Your task to perform on an android device: install app "Microsoft Authenticator" Image 0: 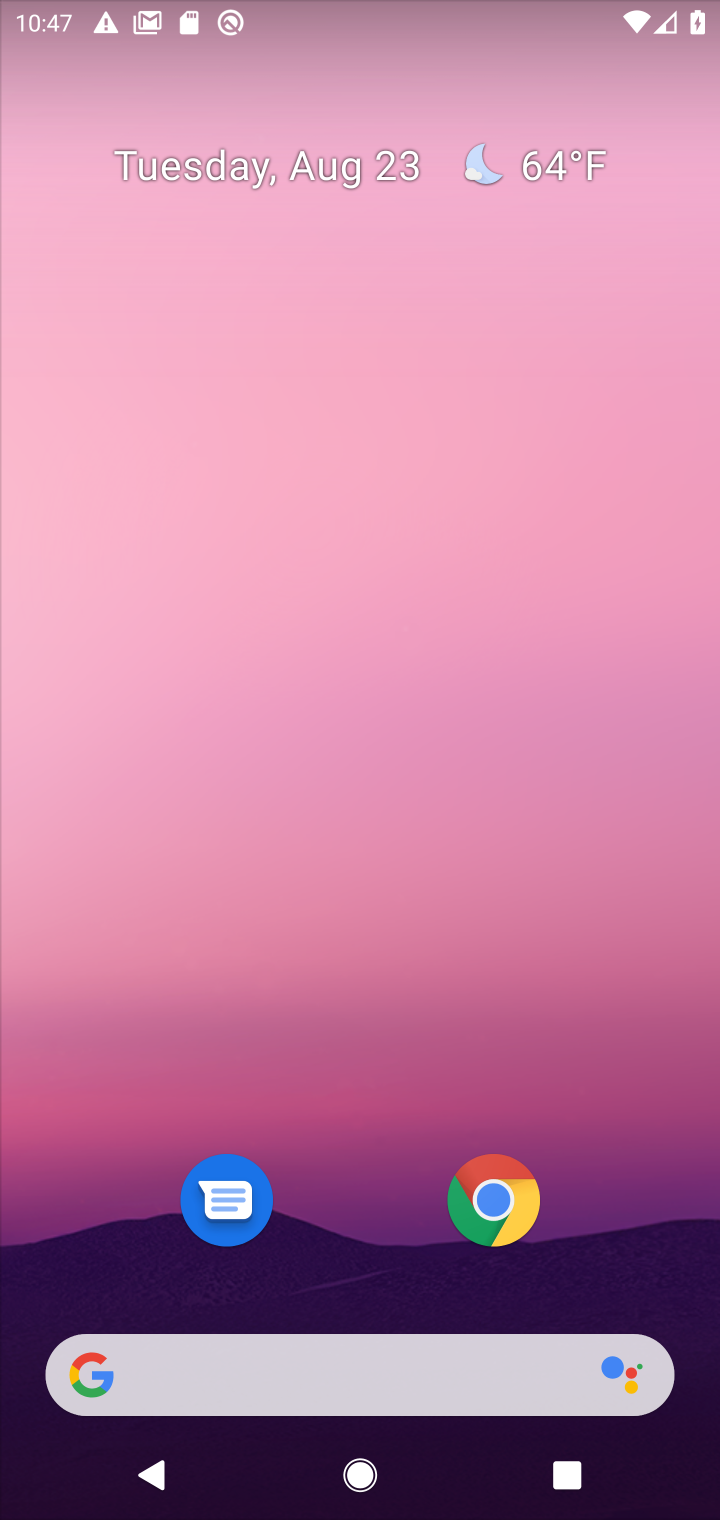
Step 0: drag from (305, 1327) to (225, 46)
Your task to perform on an android device: install app "Microsoft Authenticator" Image 1: 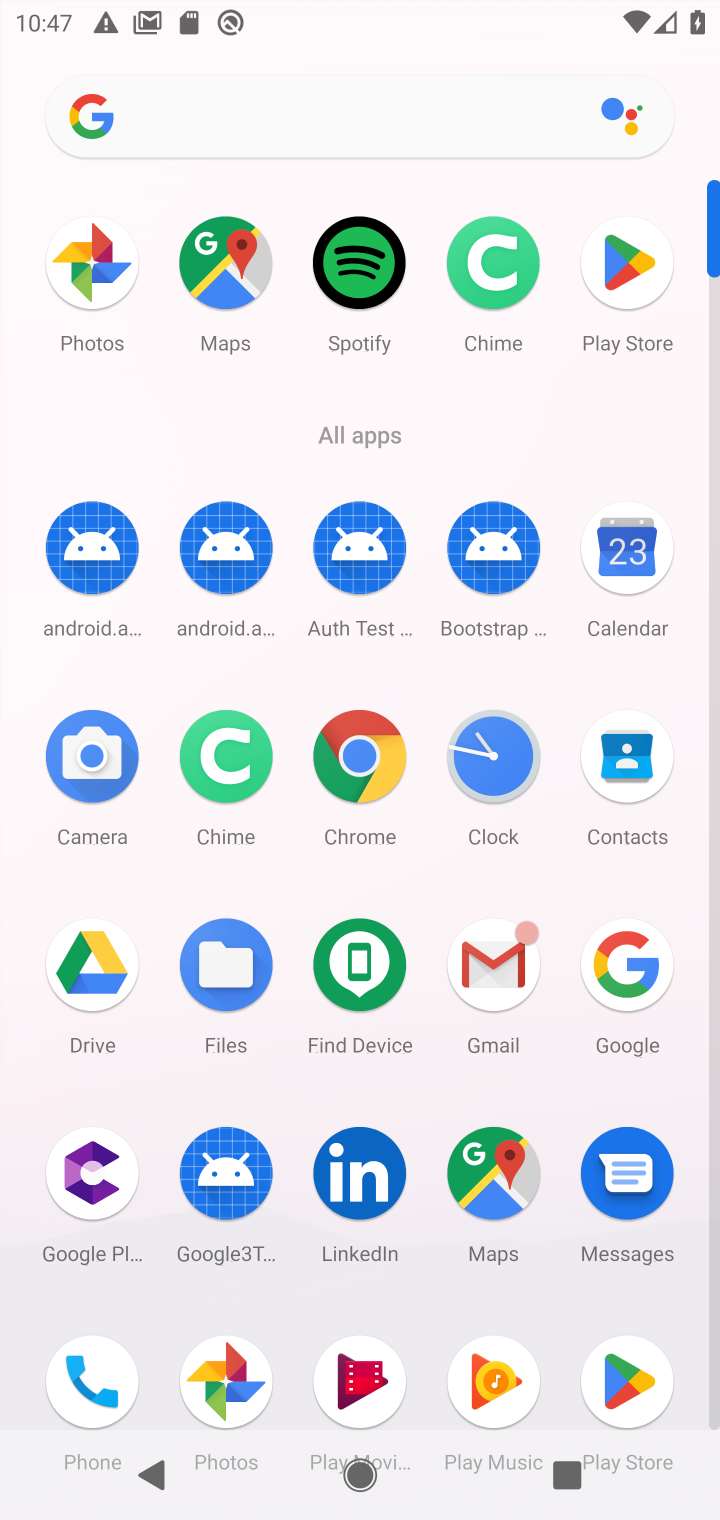
Step 1: click (613, 1345)
Your task to perform on an android device: install app "Microsoft Authenticator" Image 2: 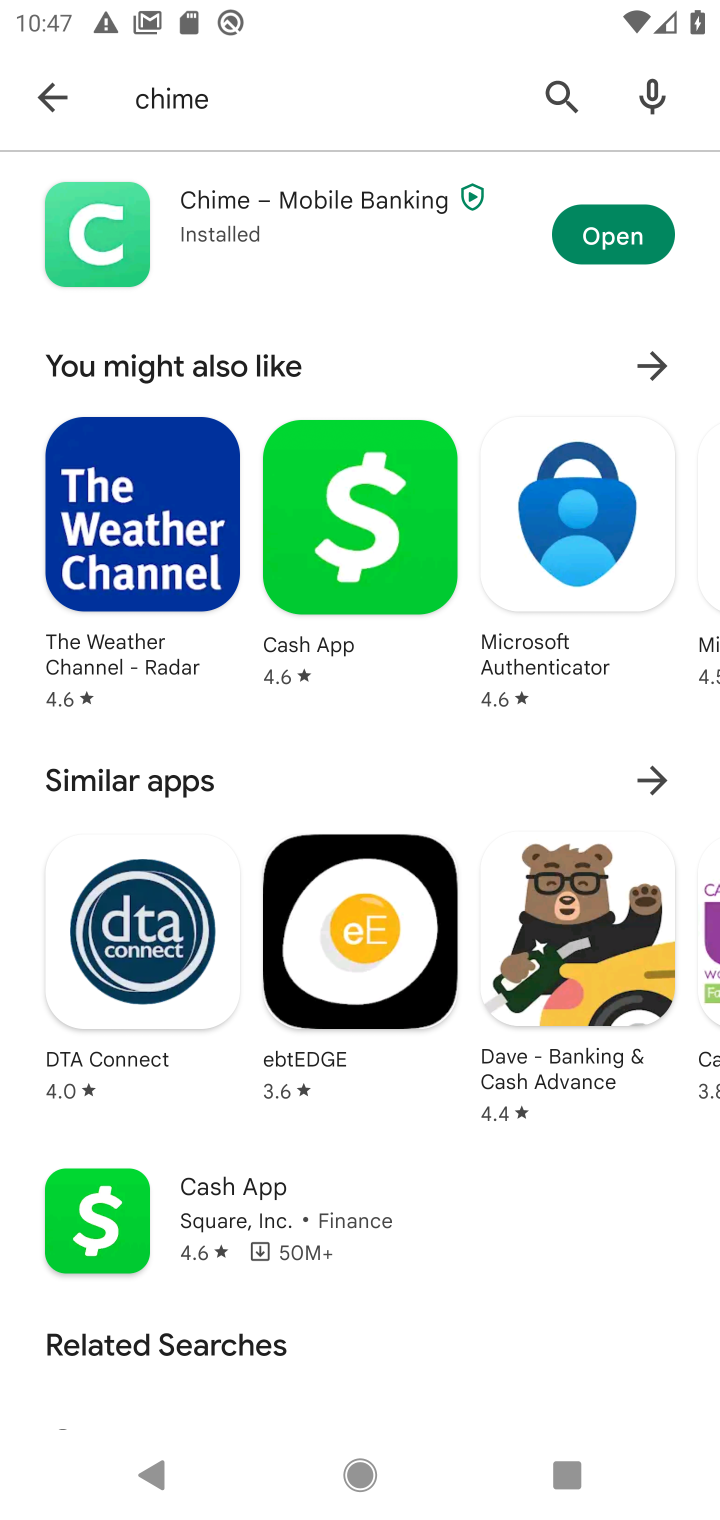
Step 2: click (36, 88)
Your task to perform on an android device: install app "Microsoft Authenticator" Image 3: 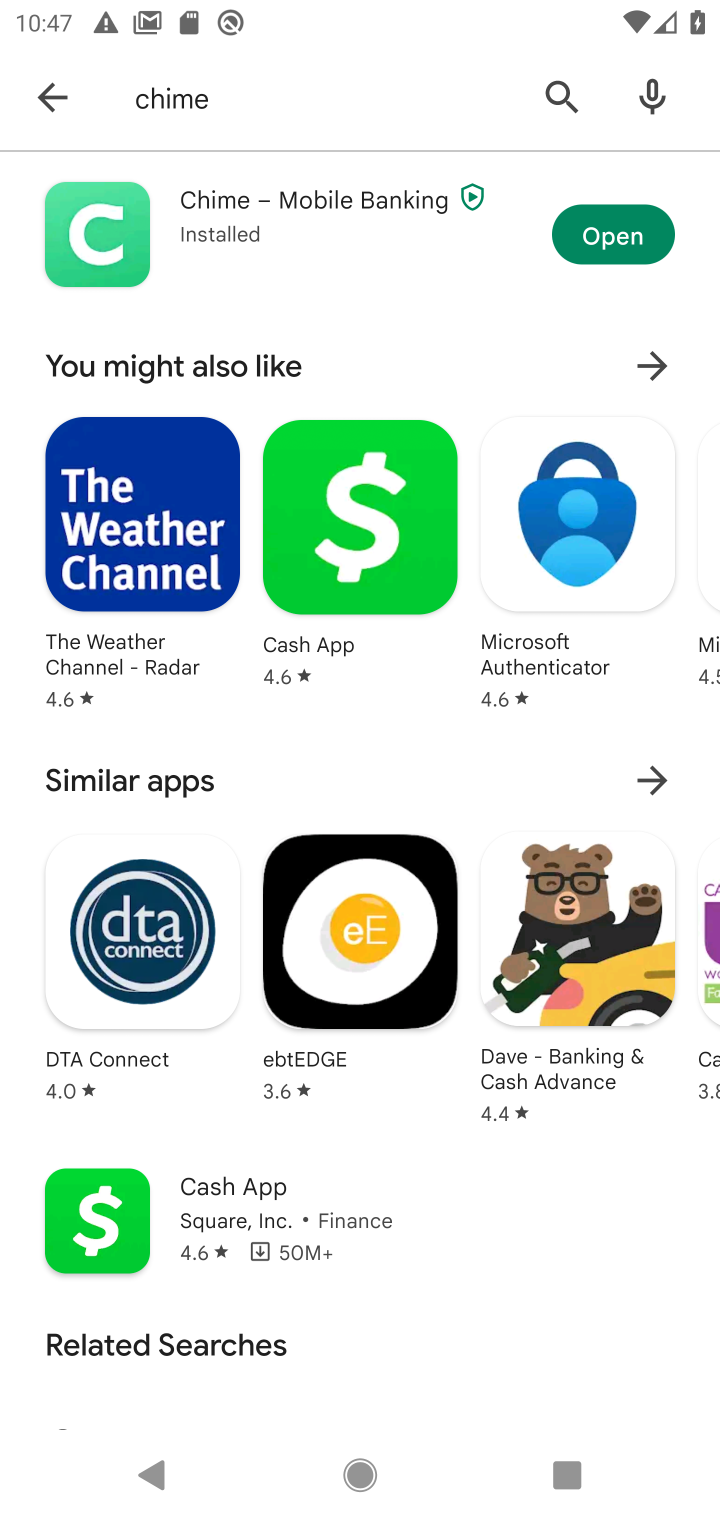
Step 3: click (36, 88)
Your task to perform on an android device: install app "Microsoft Authenticator" Image 4: 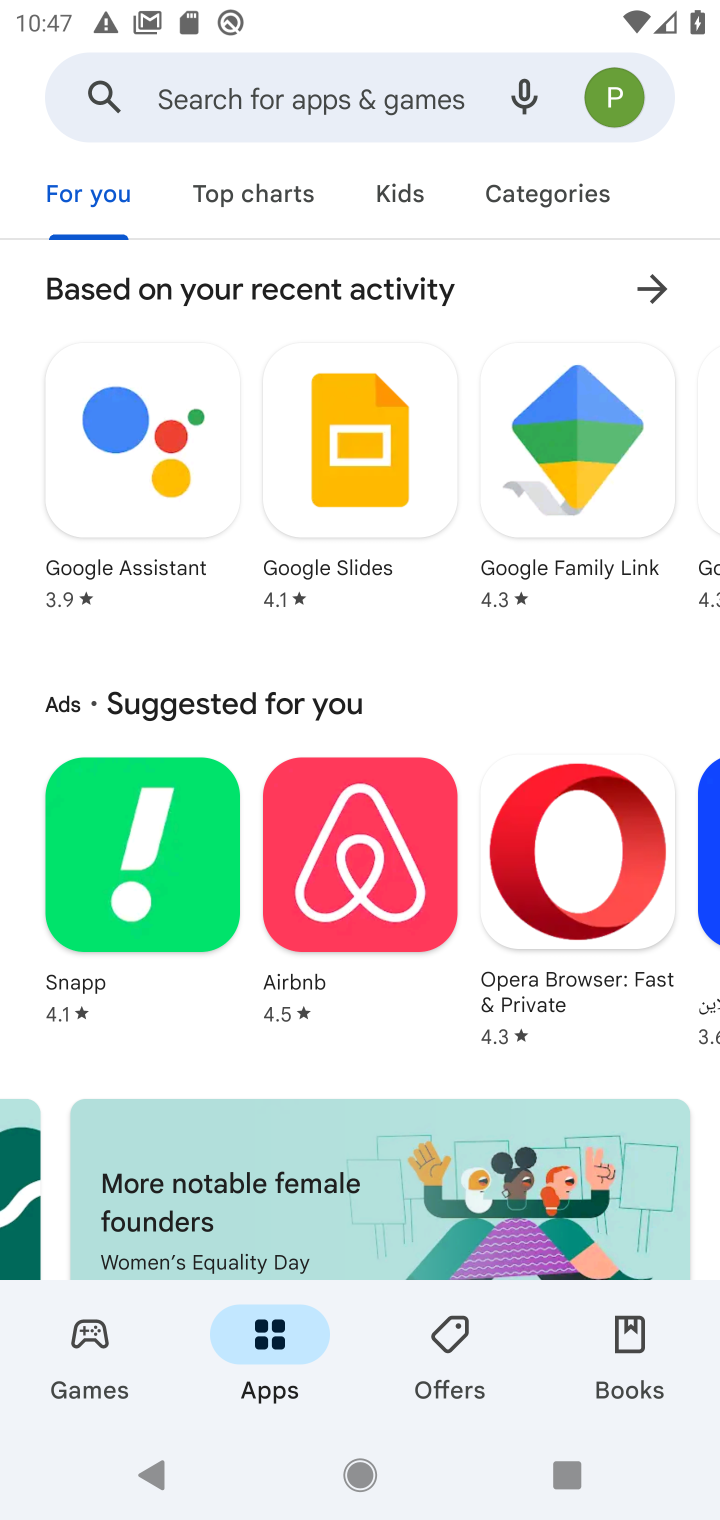
Step 4: click (141, 87)
Your task to perform on an android device: install app "Microsoft Authenticator" Image 5: 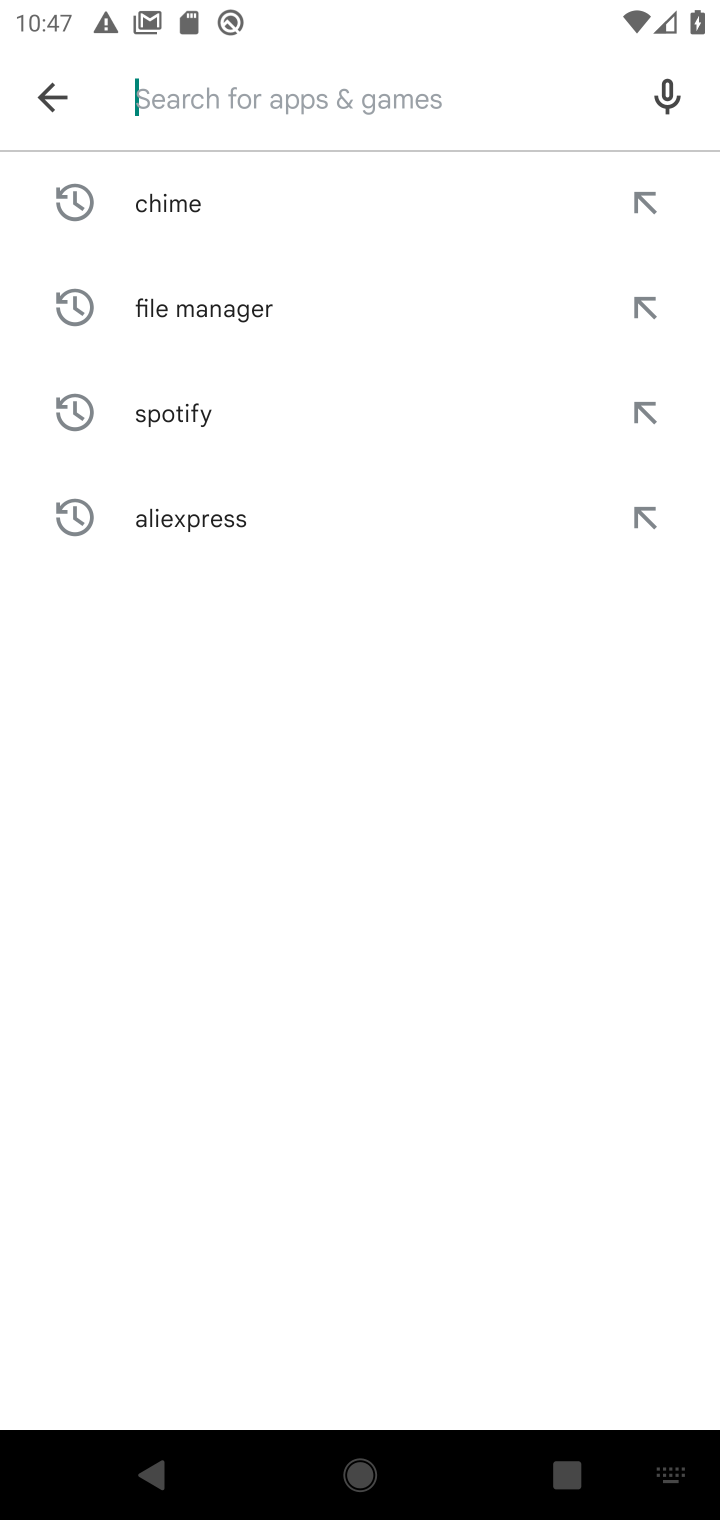
Step 5: type "Microsoft Authenticator"
Your task to perform on an android device: install app "Microsoft Authenticator" Image 6: 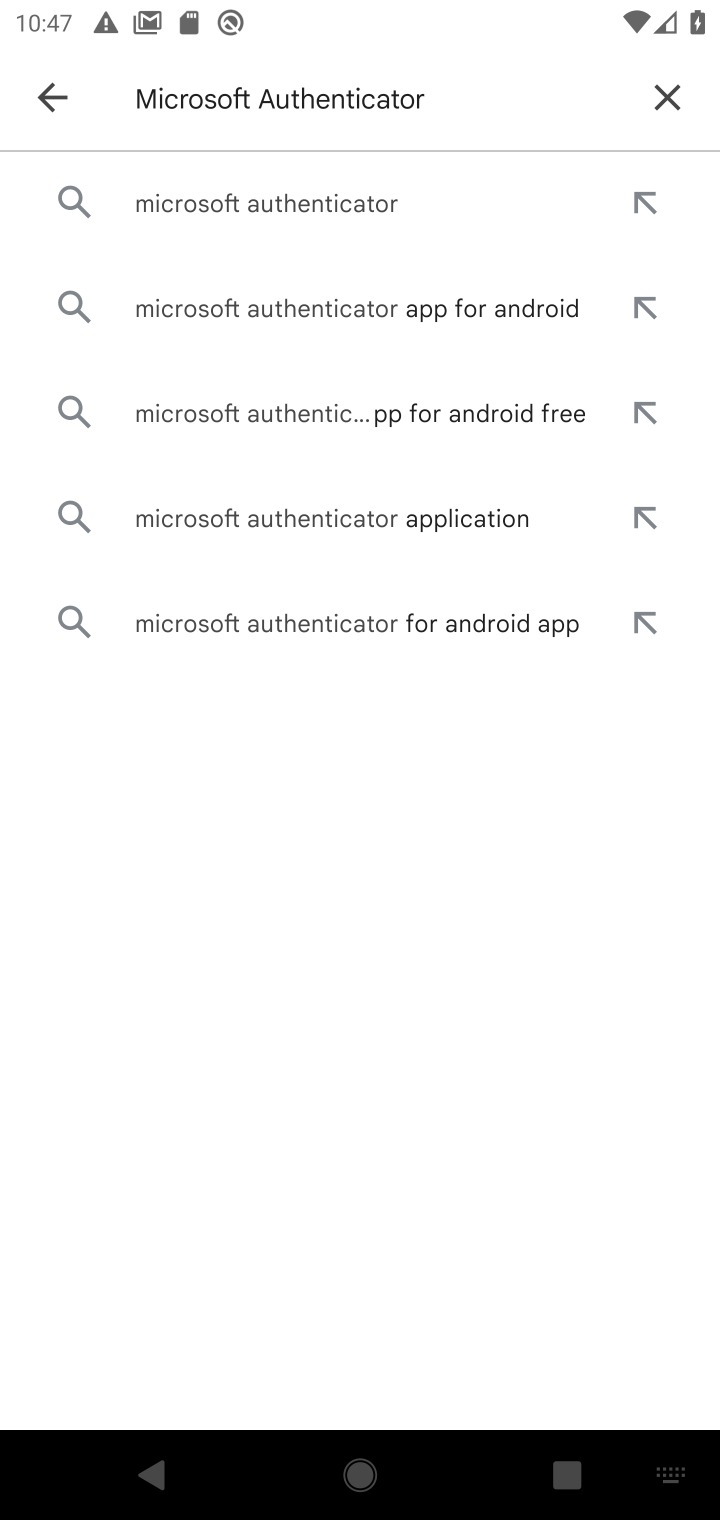
Step 6: click (218, 214)
Your task to perform on an android device: install app "Microsoft Authenticator" Image 7: 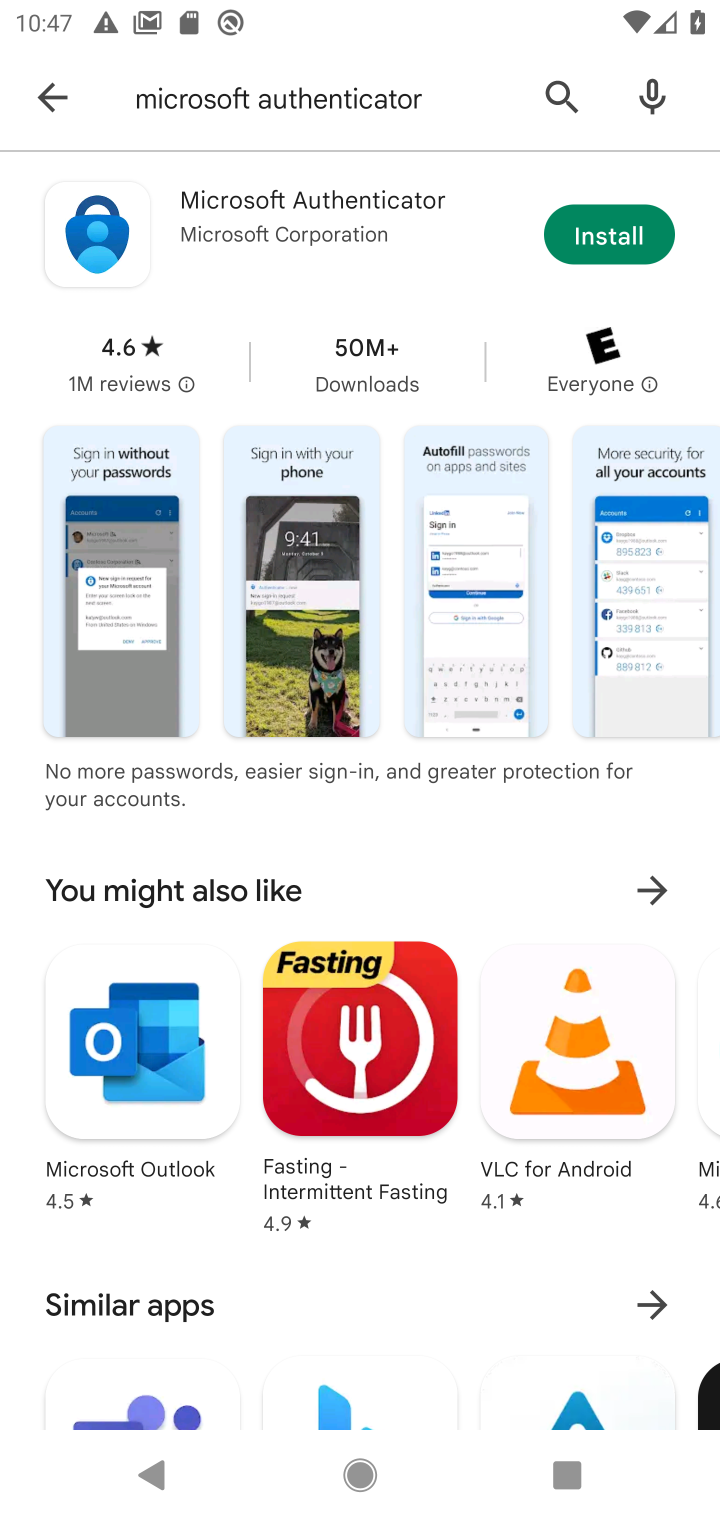
Step 7: click (674, 224)
Your task to perform on an android device: install app "Microsoft Authenticator" Image 8: 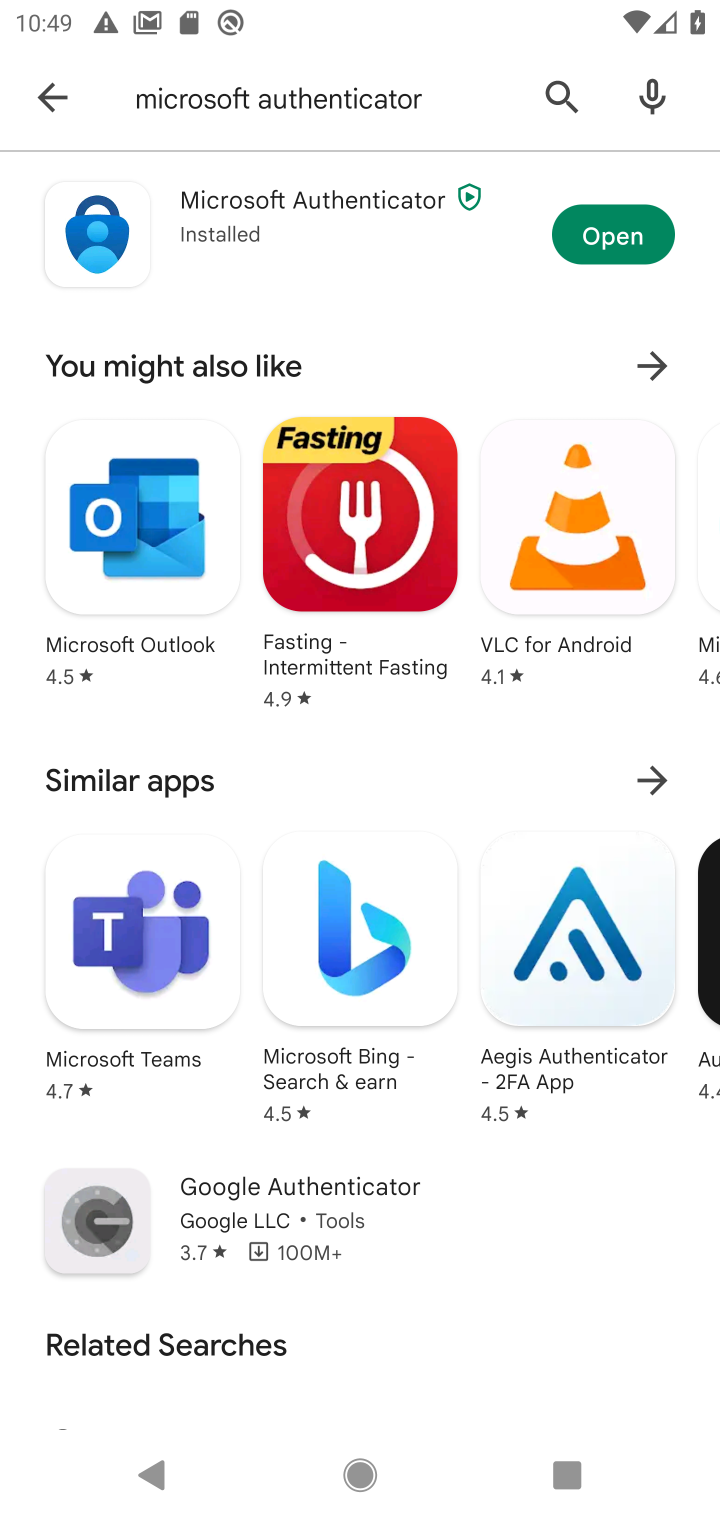
Step 8: task complete